Your task to perform on an android device: Show me popular videos on Youtube Image 0: 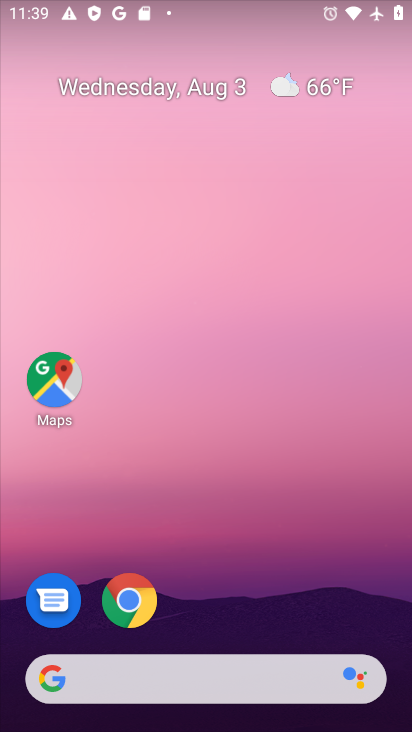
Step 0: drag from (196, 622) to (206, 97)
Your task to perform on an android device: Show me popular videos on Youtube Image 1: 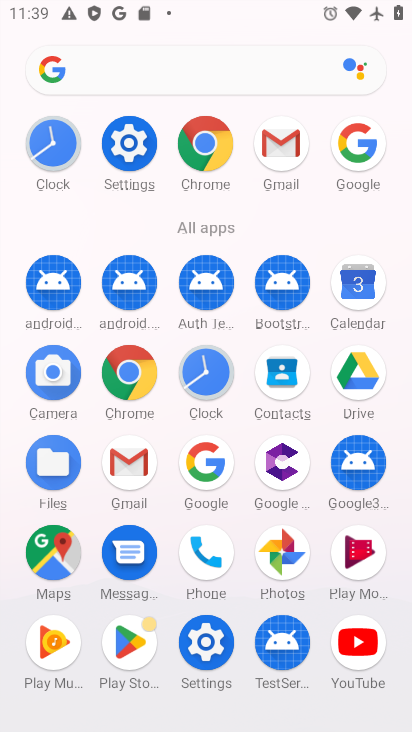
Step 1: click (350, 656)
Your task to perform on an android device: Show me popular videos on Youtube Image 2: 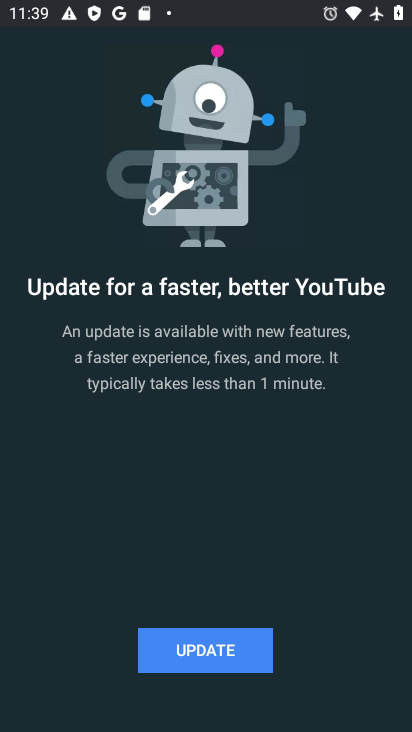
Step 2: click (222, 653)
Your task to perform on an android device: Show me popular videos on Youtube Image 3: 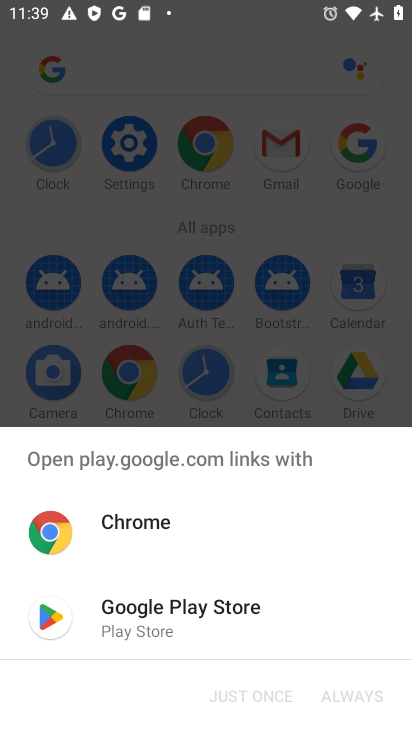
Step 3: click (257, 630)
Your task to perform on an android device: Show me popular videos on Youtube Image 4: 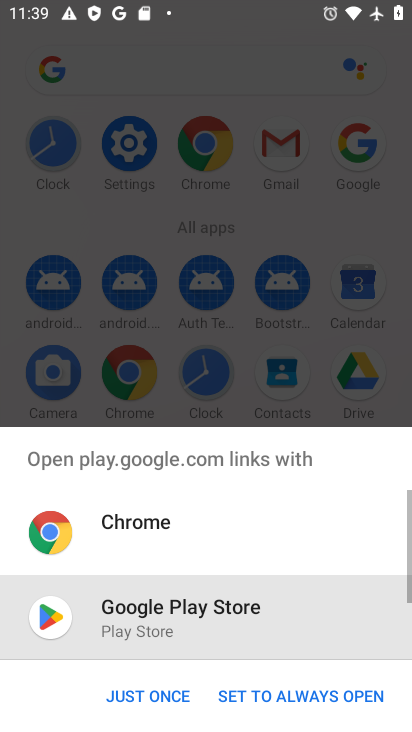
Step 4: click (114, 703)
Your task to perform on an android device: Show me popular videos on Youtube Image 5: 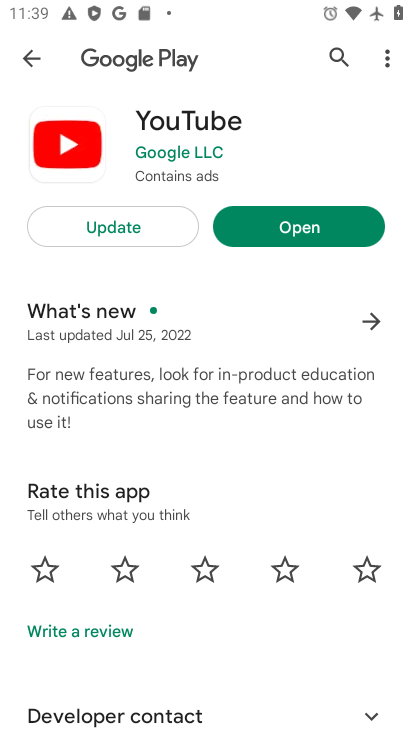
Step 5: click (132, 235)
Your task to perform on an android device: Show me popular videos on Youtube Image 6: 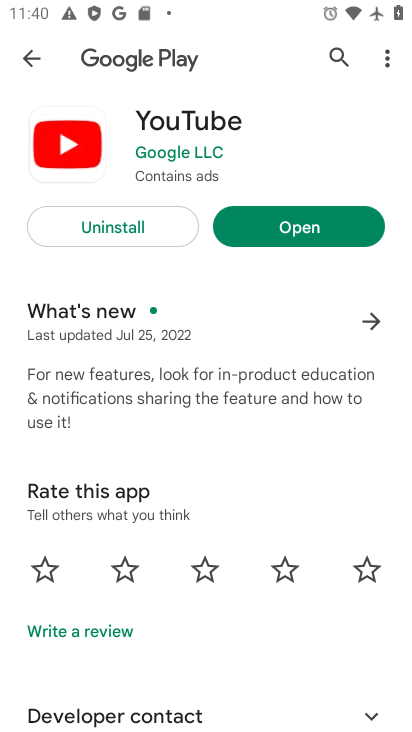
Step 6: click (262, 217)
Your task to perform on an android device: Show me popular videos on Youtube Image 7: 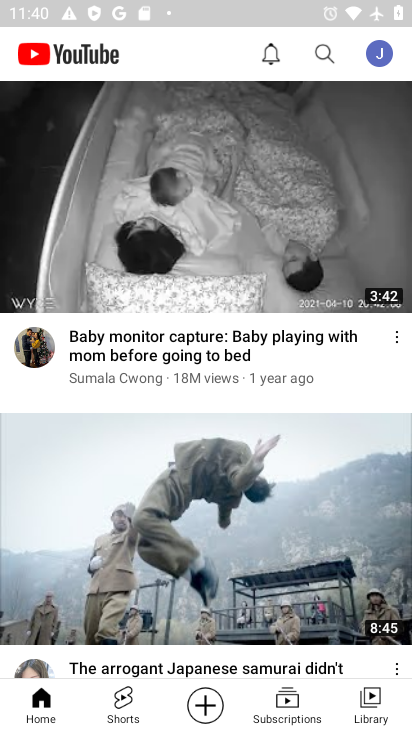
Step 7: drag from (104, 209) to (102, 380)
Your task to perform on an android device: Show me popular videos on Youtube Image 8: 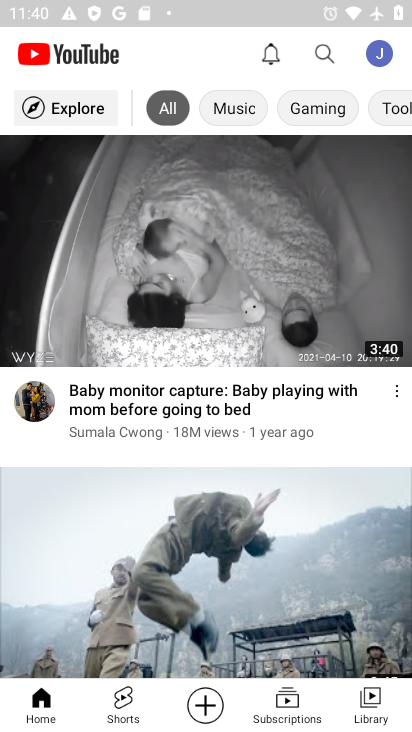
Step 8: click (77, 101)
Your task to perform on an android device: Show me popular videos on Youtube Image 9: 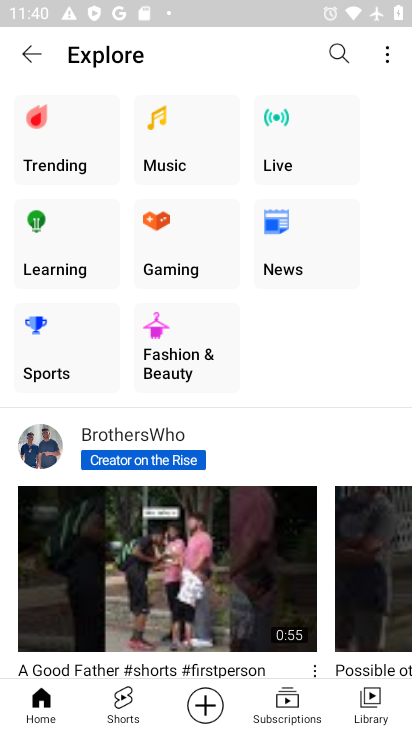
Step 9: click (51, 170)
Your task to perform on an android device: Show me popular videos on Youtube Image 10: 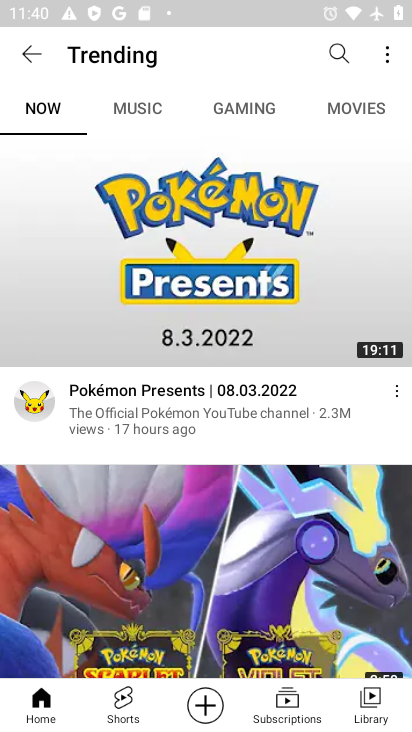
Step 10: task complete